Your task to perform on an android device: Go to sound settings Image 0: 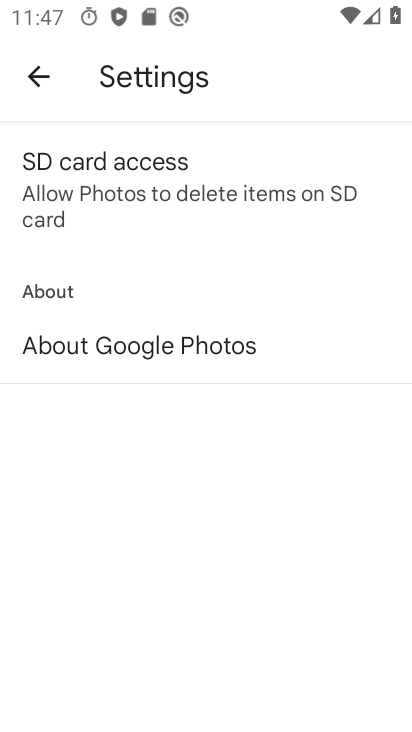
Step 0: press home button
Your task to perform on an android device: Go to sound settings Image 1: 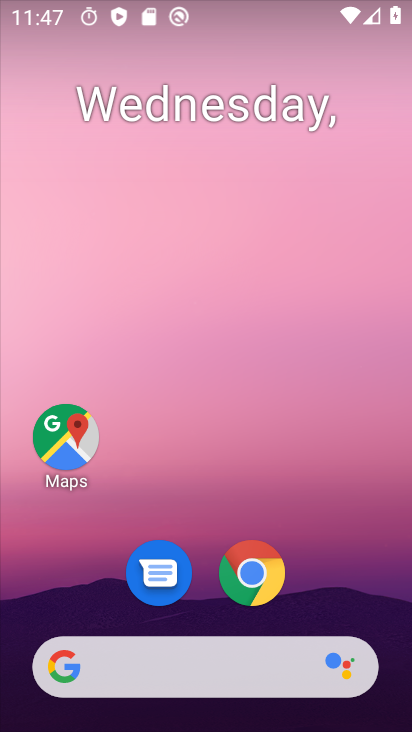
Step 1: drag from (354, 275) to (347, 182)
Your task to perform on an android device: Go to sound settings Image 2: 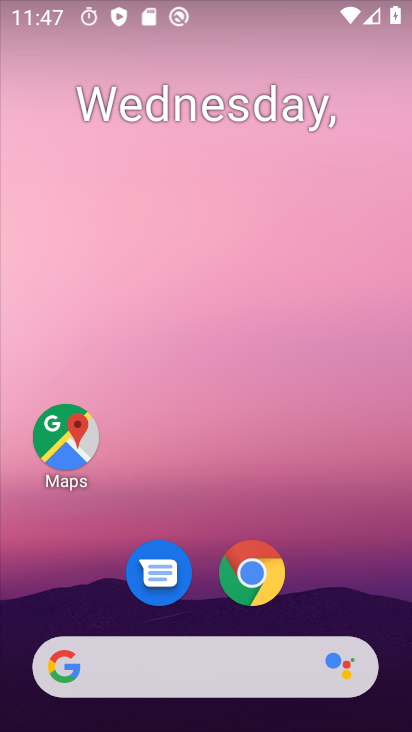
Step 2: drag from (393, 603) to (379, 250)
Your task to perform on an android device: Go to sound settings Image 3: 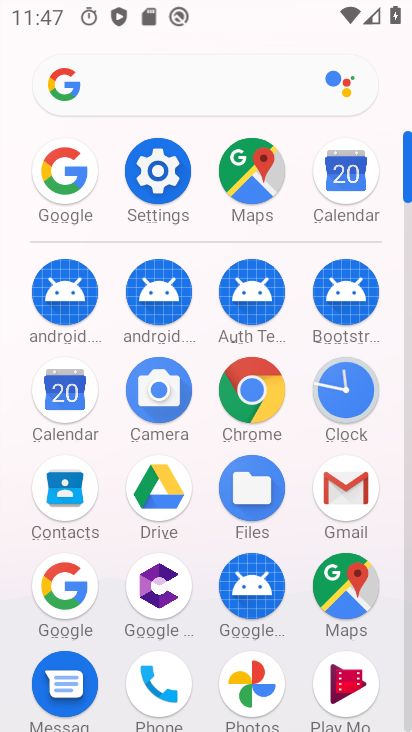
Step 3: click (161, 184)
Your task to perform on an android device: Go to sound settings Image 4: 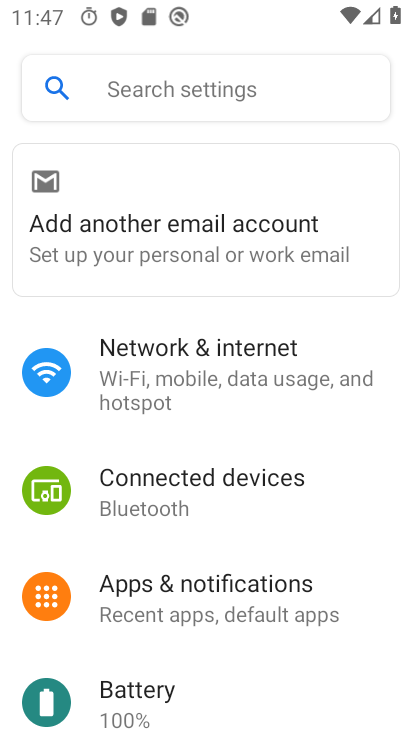
Step 4: drag from (306, 575) to (291, 320)
Your task to perform on an android device: Go to sound settings Image 5: 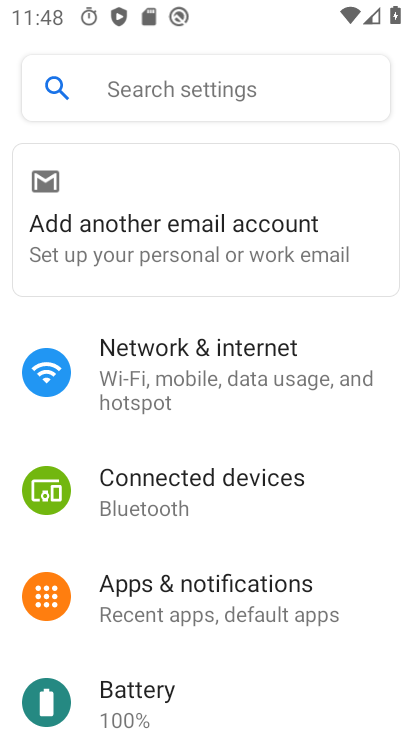
Step 5: drag from (361, 682) to (363, 321)
Your task to perform on an android device: Go to sound settings Image 6: 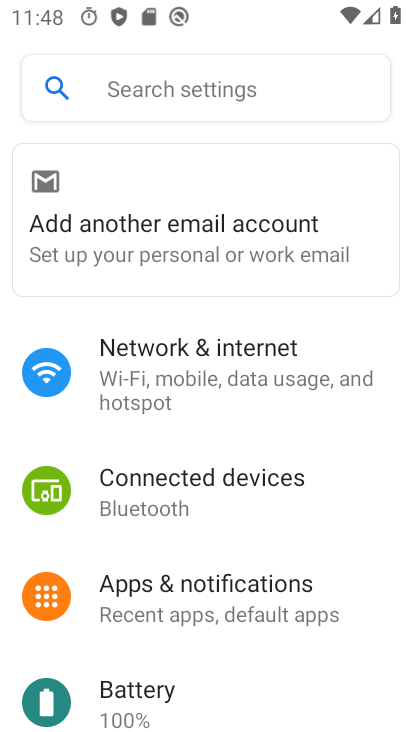
Step 6: click (386, 433)
Your task to perform on an android device: Go to sound settings Image 7: 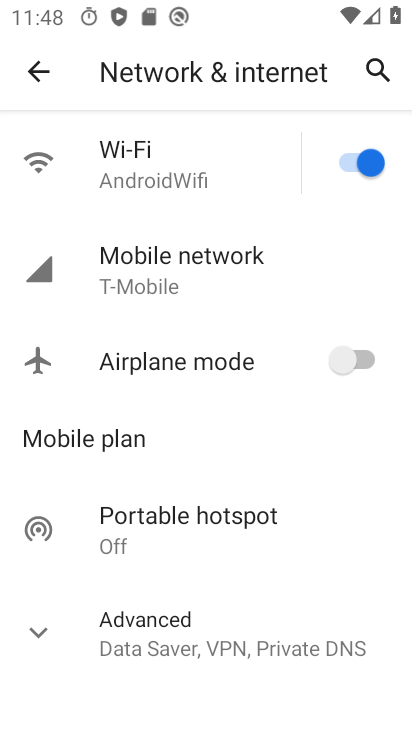
Step 7: drag from (365, 680) to (308, 354)
Your task to perform on an android device: Go to sound settings Image 8: 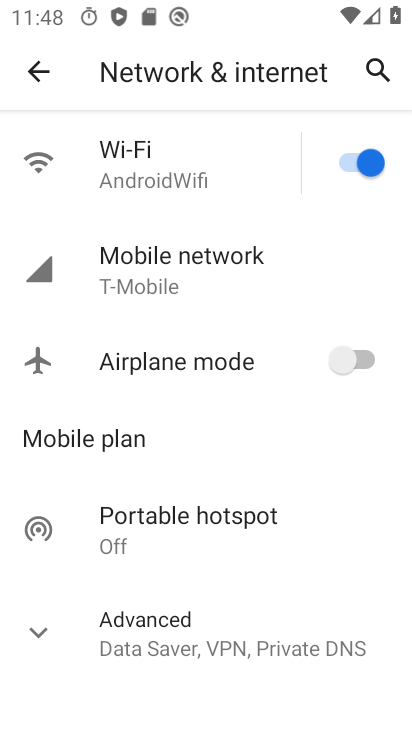
Step 8: click (43, 75)
Your task to perform on an android device: Go to sound settings Image 9: 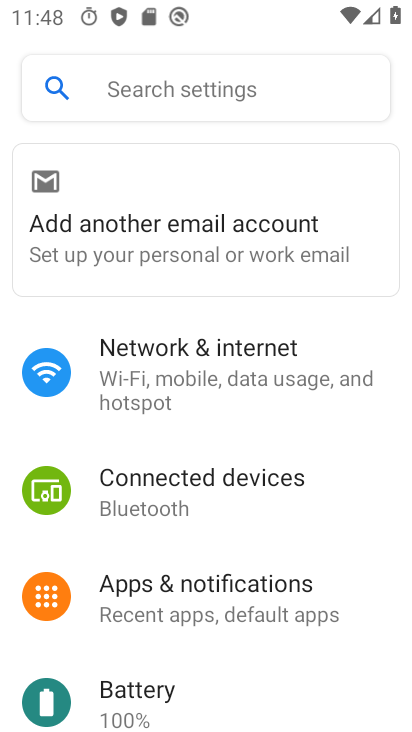
Step 9: drag from (346, 643) to (383, 308)
Your task to perform on an android device: Go to sound settings Image 10: 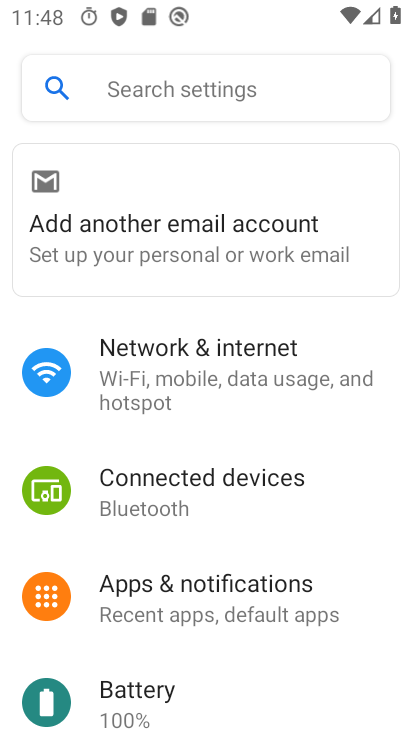
Step 10: drag from (374, 689) to (393, 388)
Your task to perform on an android device: Go to sound settings Image 11: 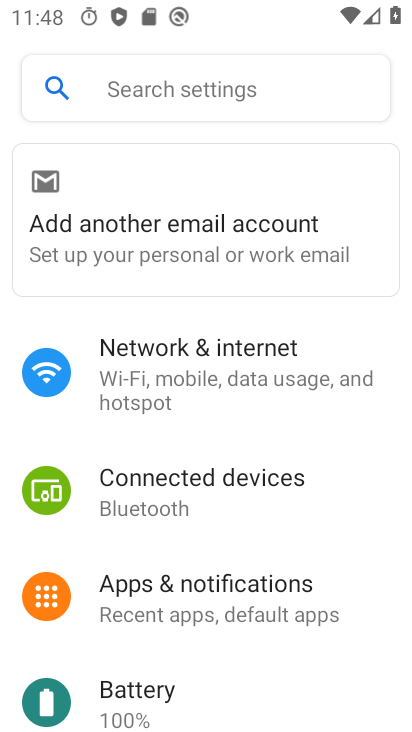
Step 11: drag from (373, 649) to (392, 398)
Your task to perform on an android device: Go to sound settings Image 12: 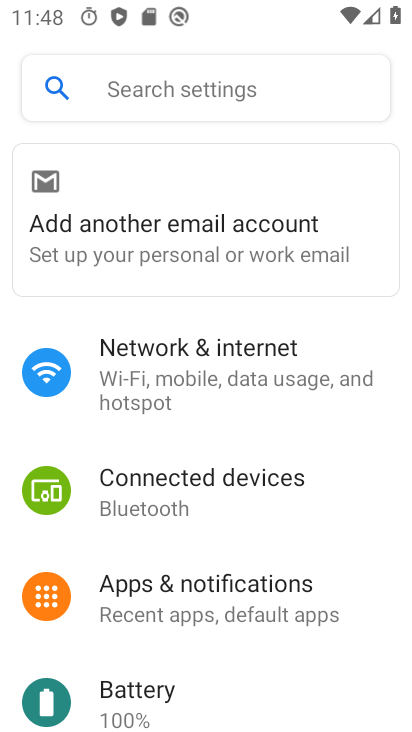
Step 12: drag from (383, 634) to (379, 373)
Your task to perform on an android device: Go to sound settings Image 13: 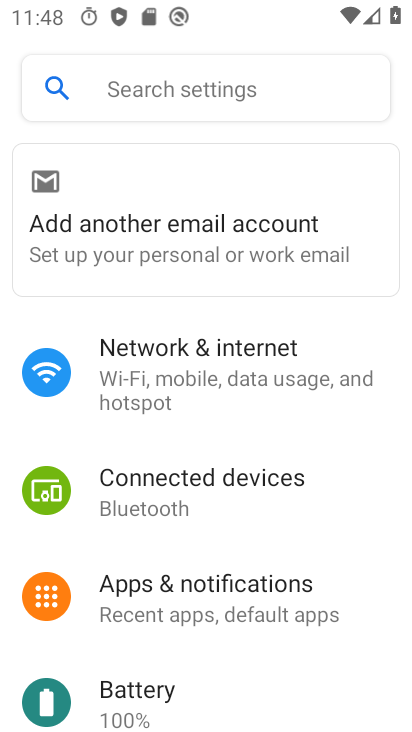
Step 13: drag from (322, 669) to (313, 424)
Your task to perform on an android device: Go to sound settings Image 14: 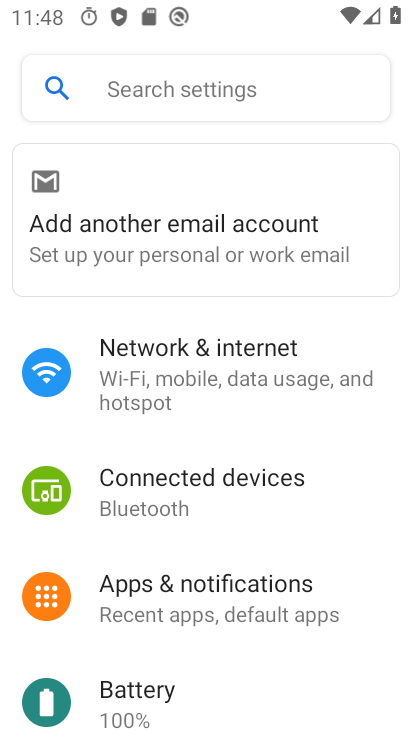
Step 14: drag from (362, 424) to (335, 222)
Your task to perform on an android device: Go to sound settings Image 15: 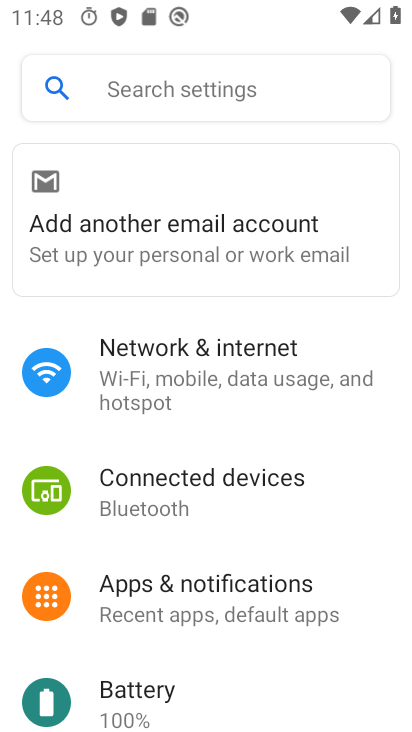
Step 15: click (376, 397)
Your task to perform on an android device: Go to sound settings Image 16: 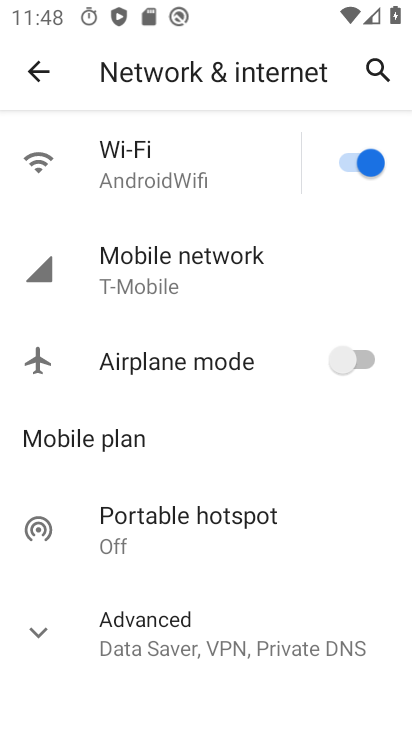
Step 16: click (33, 78)
Your task to perform on an android device: Go to sound settings Image 17: 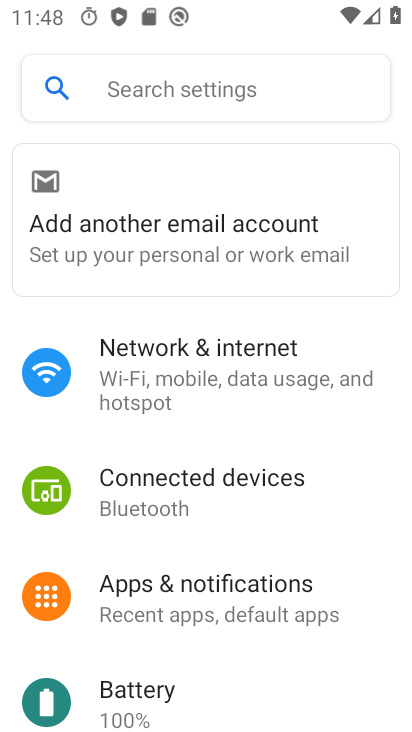
Step 17: drag from (347, 680) to (356, 351)
Your task to perform on an android device: Go to sound settings Image 18: 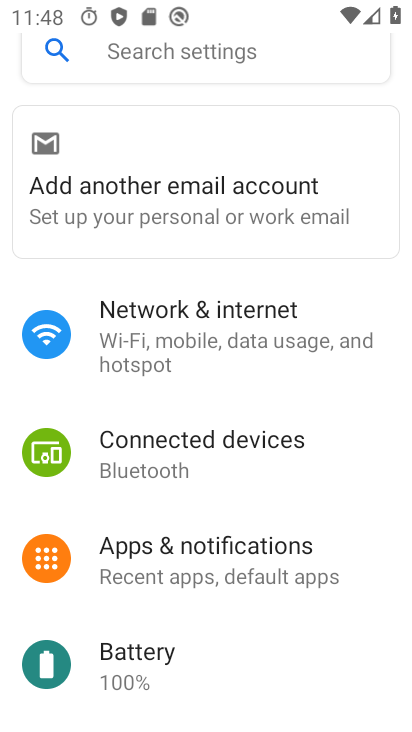
Step 18: drag from (391, 674) to (411, 282)
Your task to perform on an android device: Go to sound settings Image 19: 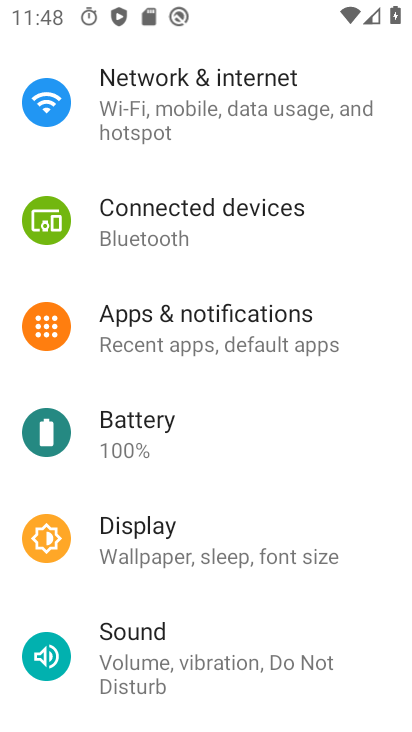
Step 19: drag from (374, 648) to (390, 166)
Your task to perform on an android device: Go to sound settings Image 20: 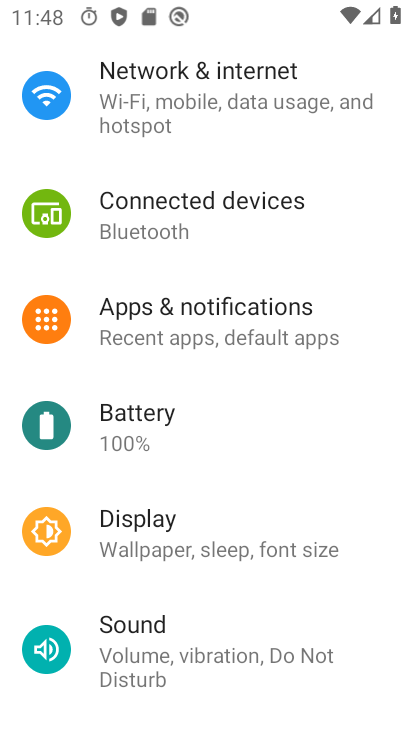
Step 20: drag from (384, 705) to (372, 235)
Your task to perform on an android device: Go to sound settings Image 21: 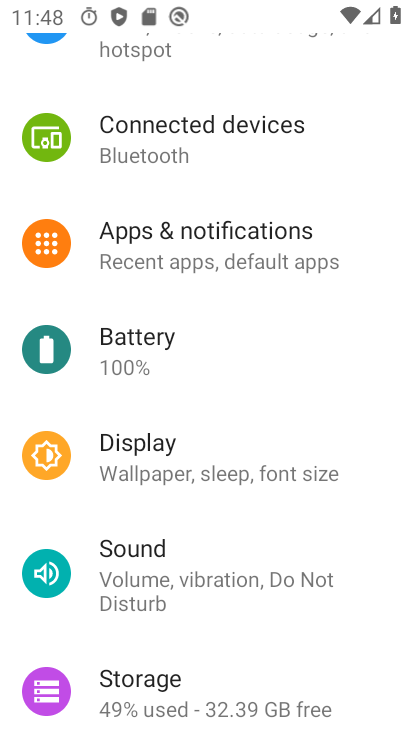
Step 21: click (104, 563)
Your task to perform on an android device: Go to sound settings Image 22: 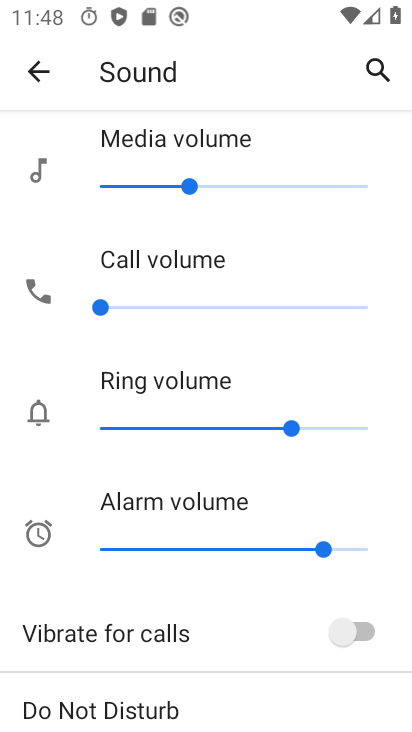
Step 22: task complete